Your task to perform on an android device: turn on showing notifications on the lock screen Image 0: 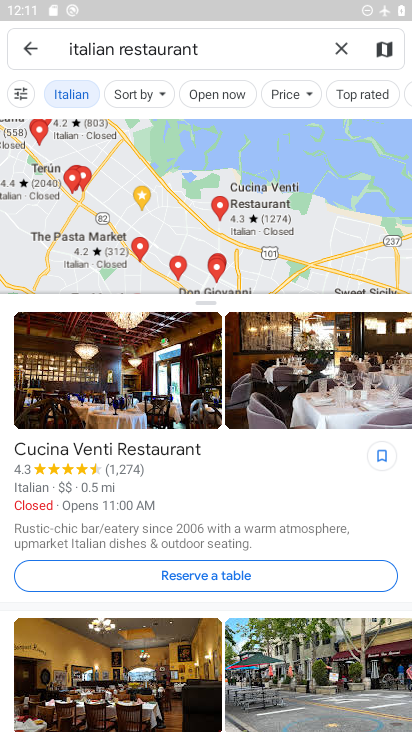
Step 0: press home button
Your task to perform on an android device: turn on showing notifications on the lock screen Image 1: 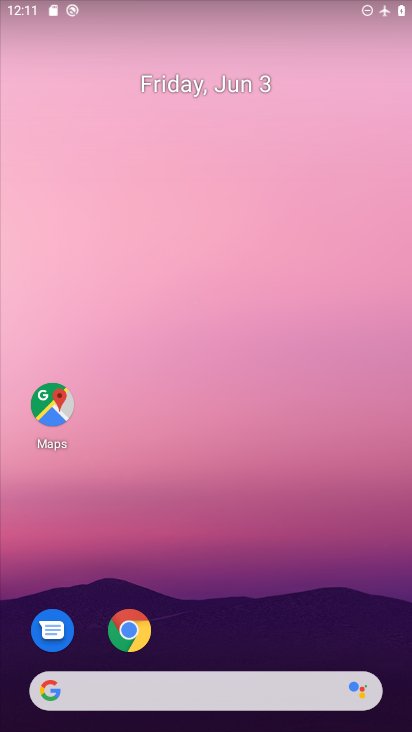
Step 1: drag from (241, 624) to (172, 198)
Your task to perform on an android device: turn on showing notifications on the lock screen Image 2: 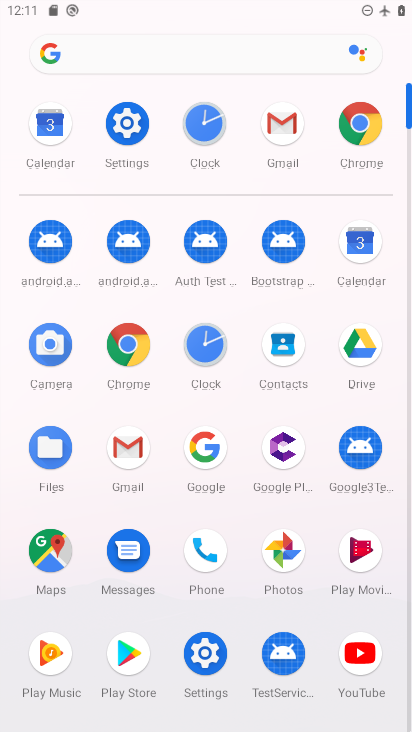
Step 2: click (143, 115)
Your task to perform on an android device: turn on showing notifications on the lock screen Image 3: 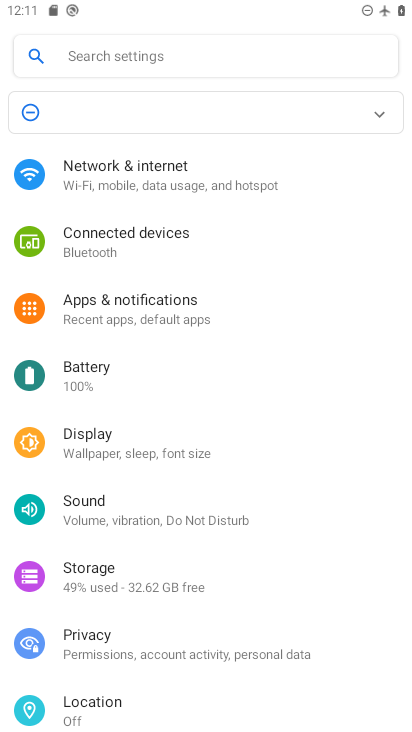
Step 3: click (138, 300)
Your task to perform on an android device: turn on showing notifications on the lock screen Image 4: 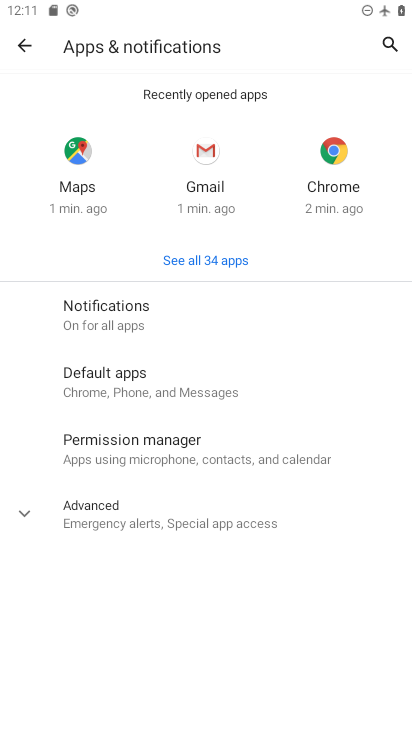
Step 4: click (144, 320)
Your task to perform on an android device: turn on showing notifications on the lock screen Image 5: 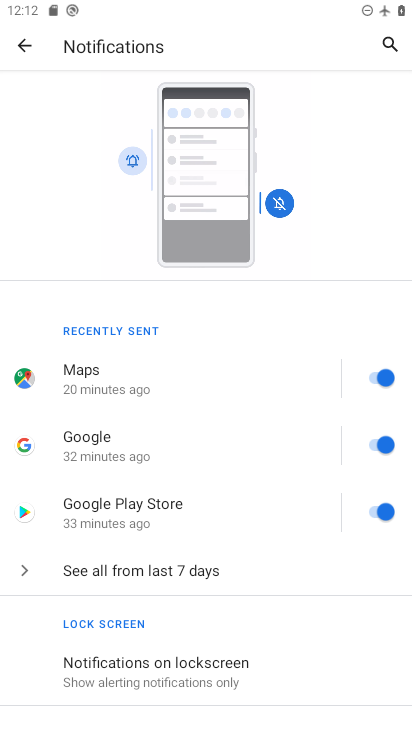
Step 5: drag from (236, 637) to (192, 321)
Your task to perform on an android device: turn on showing notifications on the lock screen Image 6: 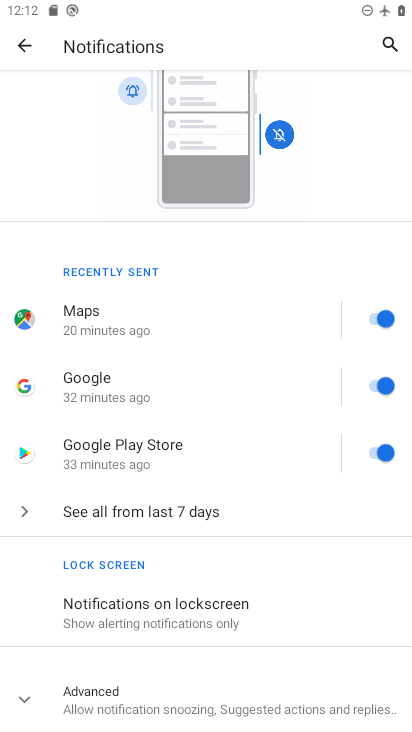
Step 6: click (231, 590)
Your task to perform on an android device: turn on showing notifications on the lock screen Image 7: 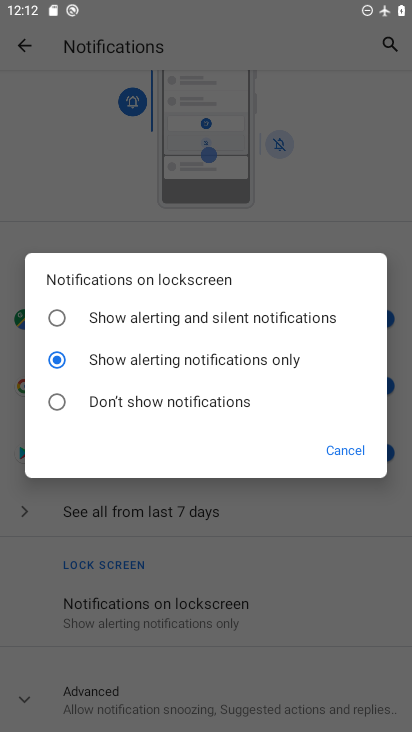
Step 7: task complete